Your task to perform on an android device: Show me popular games on the Play Store Image 0: 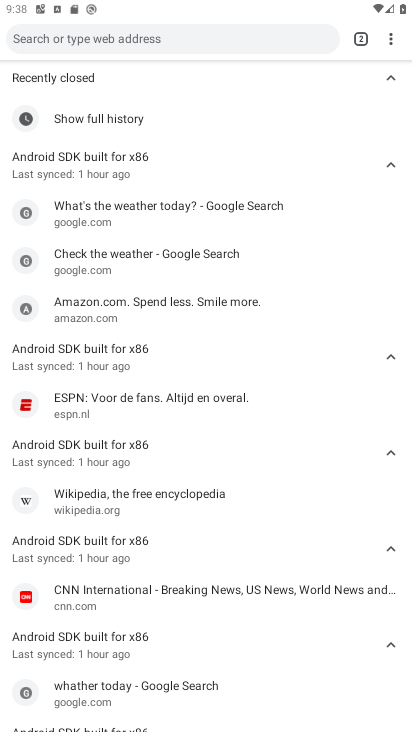
Step 0: press home button
Your task to perform on an android device: Show me popular games on the Play Store Image 1: 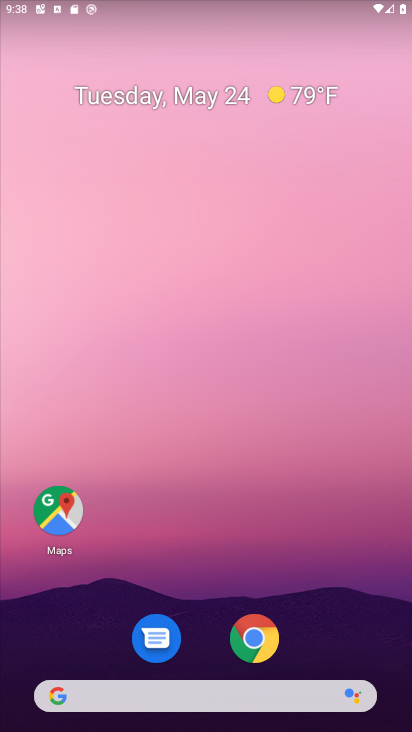
Step 1: drag from (138, 722) to (7, 292)
Your task to perform on an android device: Show me popular games on the Play Store Image 2: 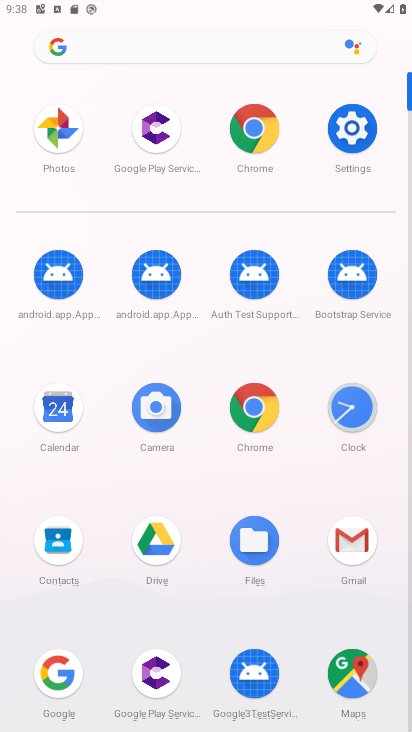
Step 2: drag from (344, 613) to (275, 116)
Your task to perform on an android device: Show me popular games on the Play Store Image 3: 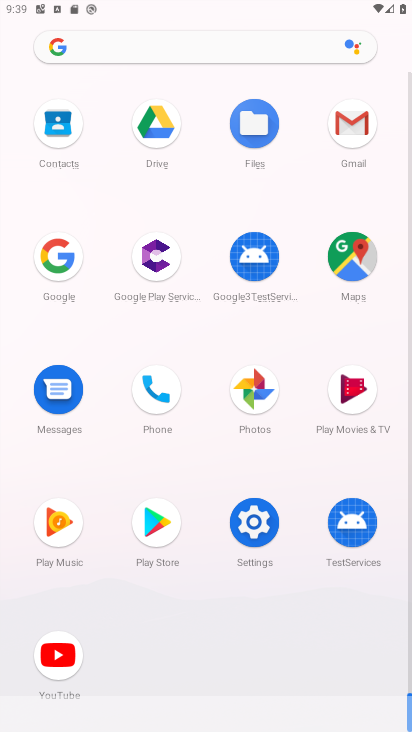
Step 3: click (152, 523)
Your task to perform on an android device: Show me popular games on the Play Store Image 4: 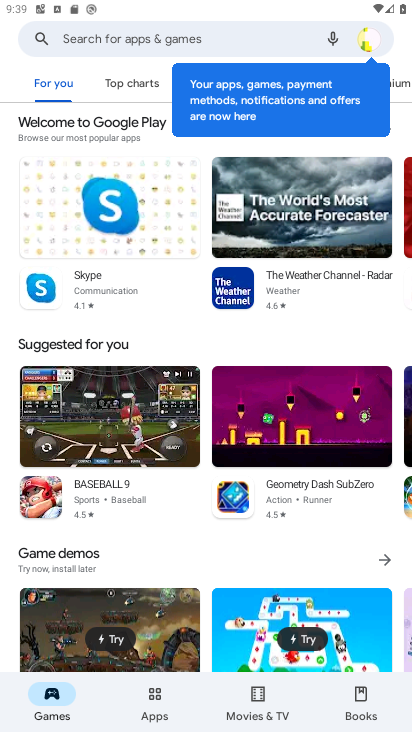
Step 4: task complete